Your task to perform on an android device: Open Google Chrome Image 0: 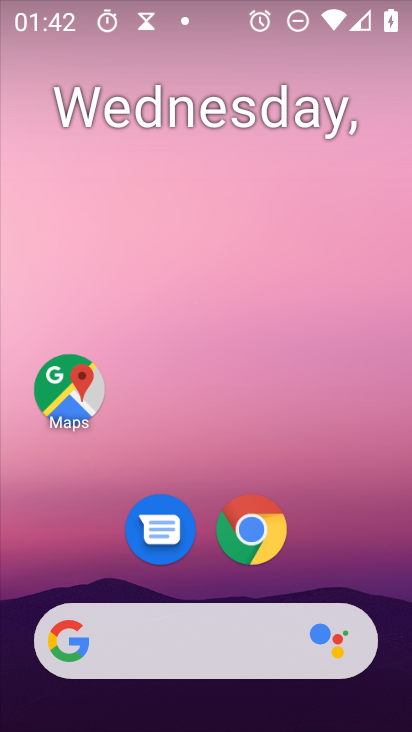
Step 0: drag from (241, 629) to (288, 16)
Your task to perform on an android device: Open Google Chrome Image 1: 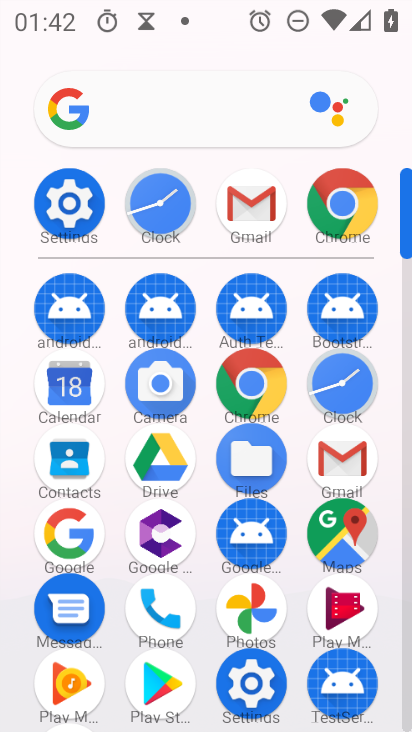
Step 1: click (242, 382)
Your task to perform on an android device: Open Google Chrome Image 2: 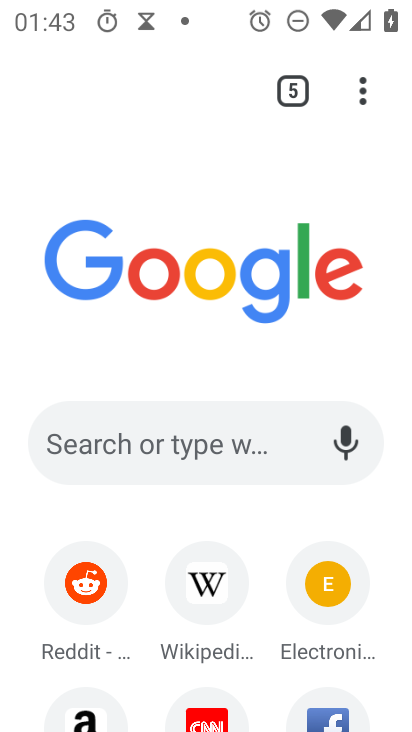
Step 2: task complete